Your task to perform on an android device: toggle sleep mode Image 0: 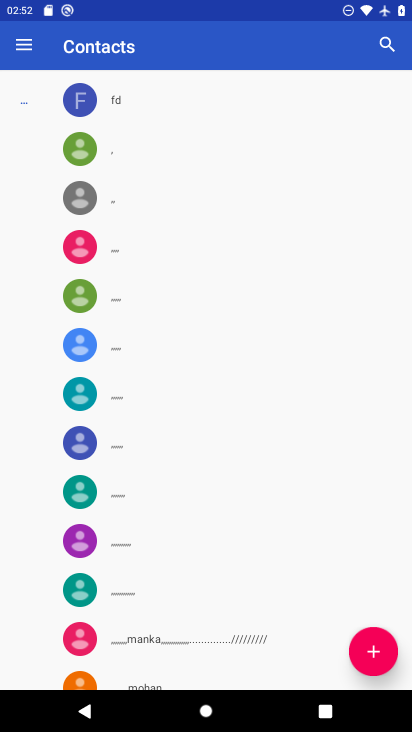
Step 0: press home button
Your task to perform on an android device: toggle sleep mode Image 1: 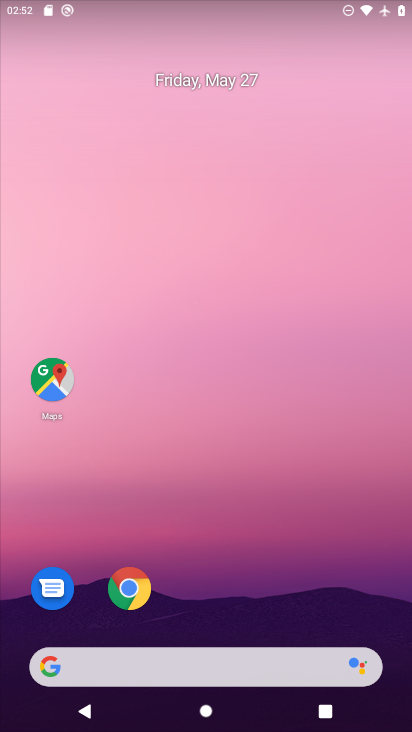
Step 1: drag from (380, 619) to (338, 25)
Your task to perform on an android device: toggle sleep mode Image 2: 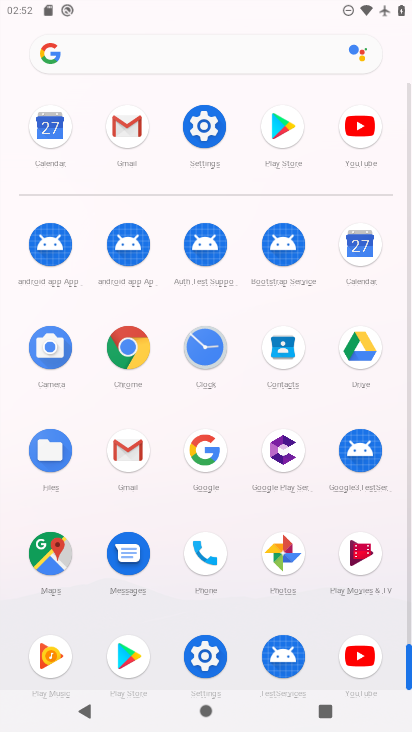
Step 2: click (203, 660)
Your task to perform on an android device: toggle sleep mode Image 3: 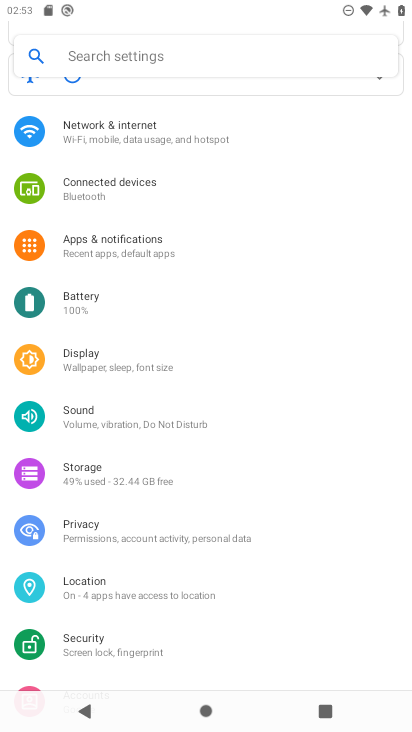
Step 3: click (99, 349)
Your task to perform on an android device: toggle sleep mode Image 4: 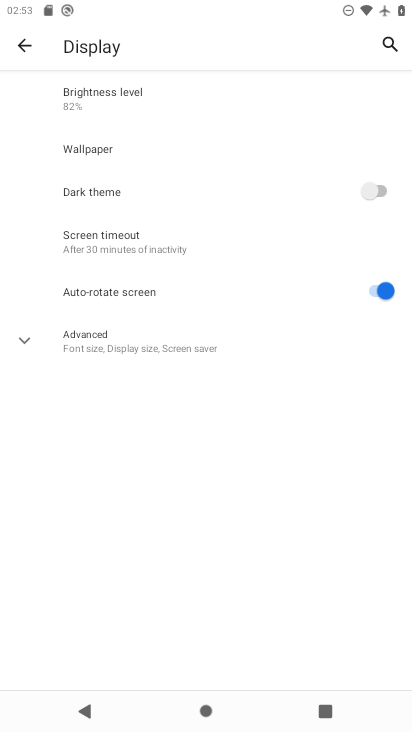
Step 4: click (21, 340)
Your task to perform on an android device: toggle sleep mode Image 5: 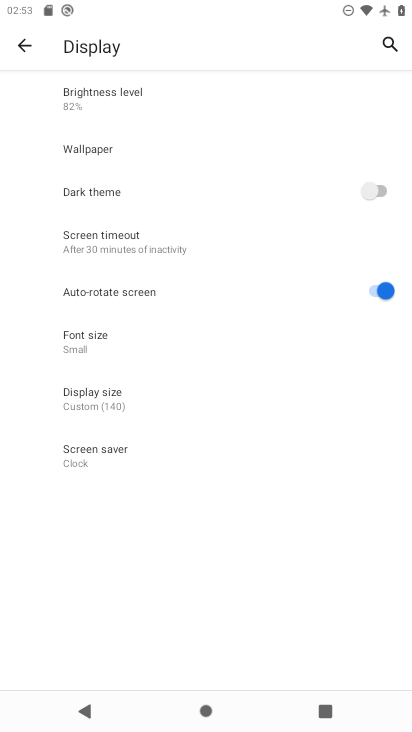
Step 5: task complete